Your task to perform on an android device: Open Chrome and go to settings Image 0: 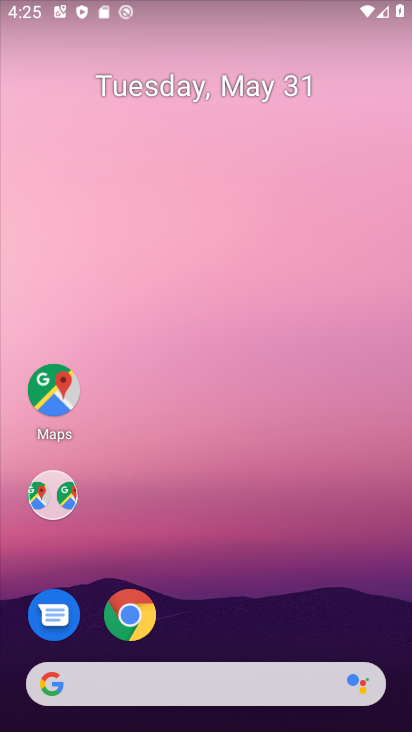
Step 0: drag from (303, 634) to (205, 154)
Your task to perform on an android device: Open Chrome and go to settings Image 1: 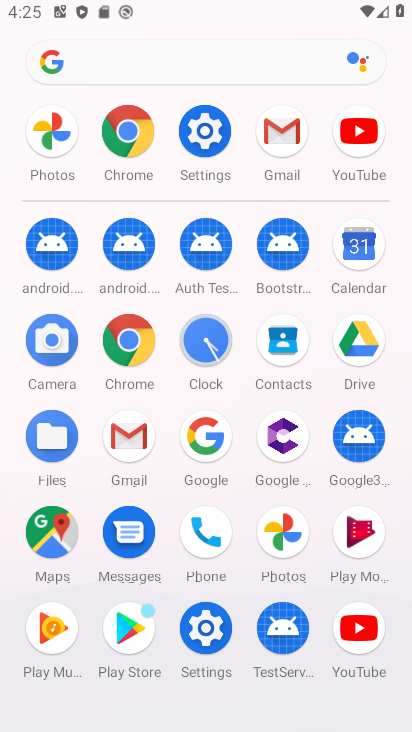
Step 1: click (193, 137)
Your task to perform on an android device: Open Chrome and go to settings Image 2: 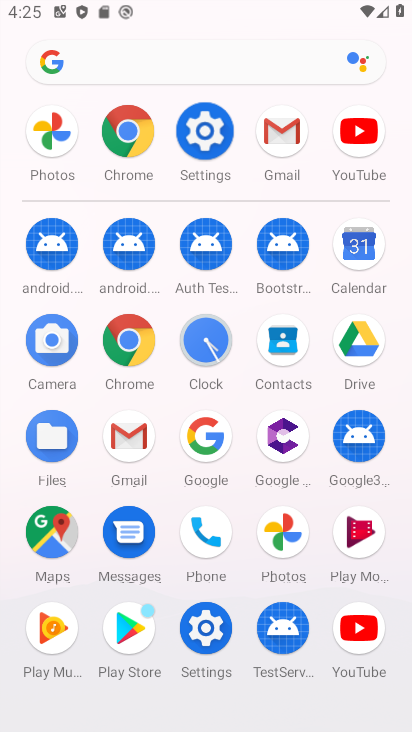
Step 2: click (199, 136)
Your task to perform on an android device: Open Chrome and go to settings Image 3: 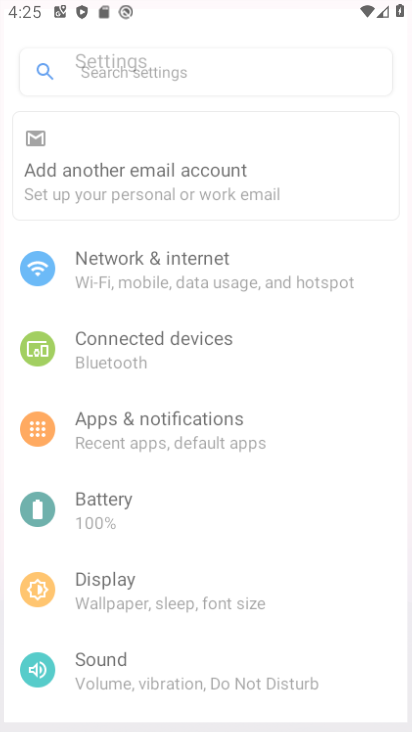
Step 3: click (199, 136)
Your task to perform on an android device: Open Chrome and go to settings Image 4: 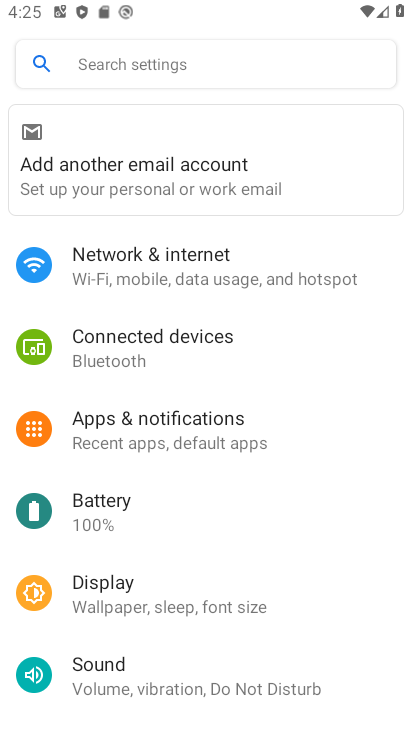
Step 4: press back button
Your task to perform on an android device: Open Chrome and go to settings Image 5: 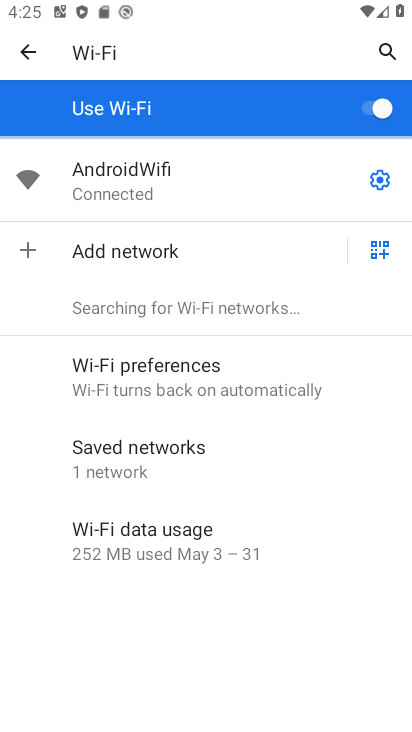
Step 5: click (16, 50)
Your task to perform on an android device: Open Chrome and go to settings Image 6: 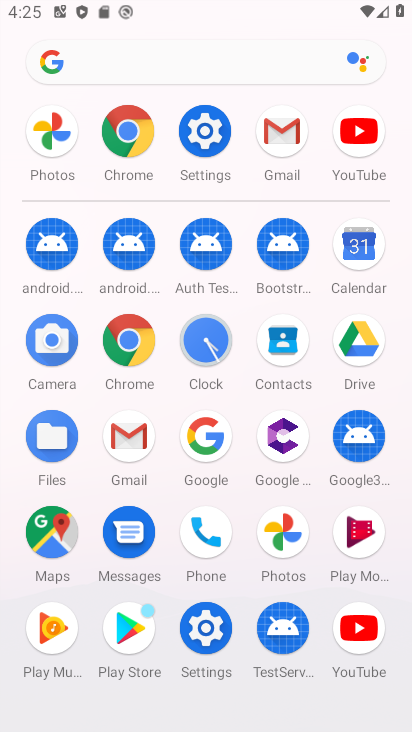
Step 6: click (141, 139)
Your task to perform on an android device: Open Chrome and go to settings Image 7: 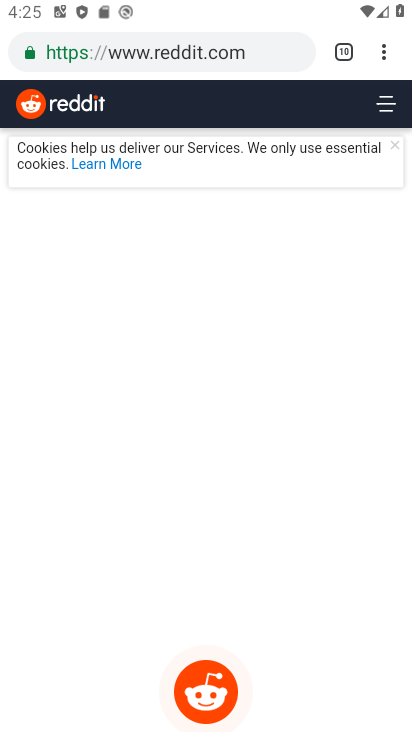
Step 7: drag from (378, 56) to (202, 617)
Your task to perform on an android device: Open Chrome and go to settings Image 8: 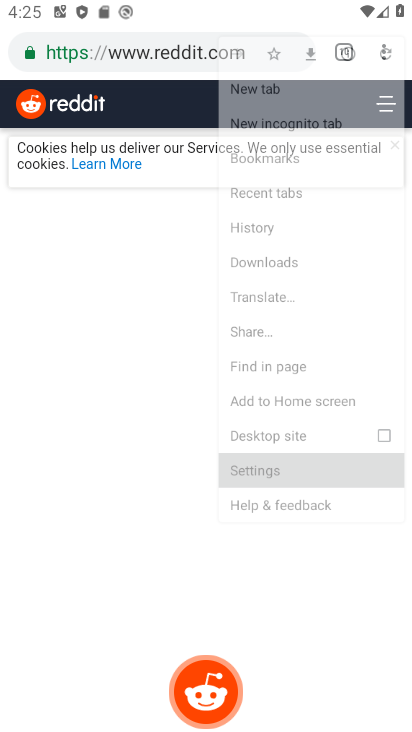
Step 8: click (202, 617)
Your task to perform on an android device: Open Chrome and go to settings Image 9: 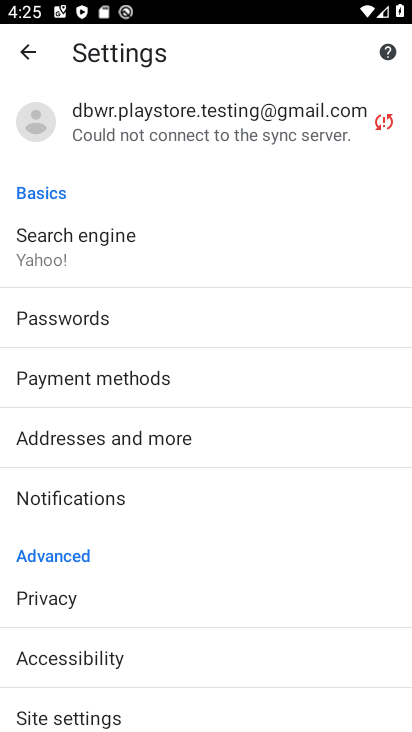
Step 9: task complete